Your task to perform on an android device: toggle notifications settings in the gmail app Image 0: 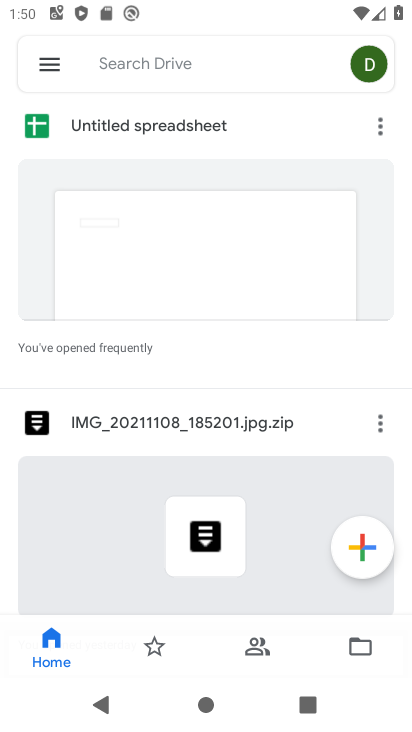
Step 0: press home button
Your task to perform on an android device: toggle notifications settings in the gmail app Image 1: 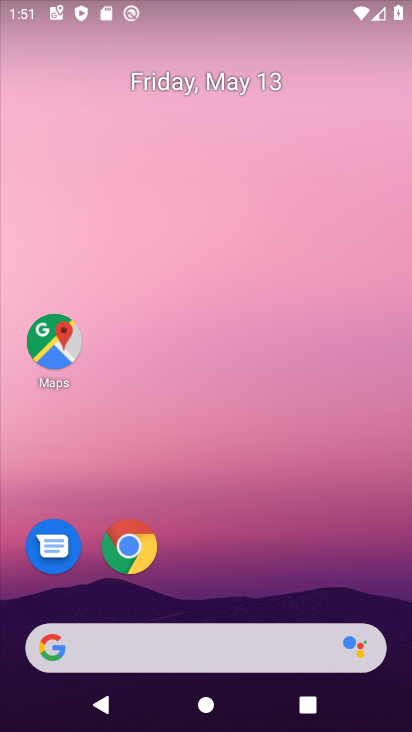
Step 1: drag from (281, 204) to (253, 66)
Your task to perform on an android device: toggle notifications settings in the gmail app Image 2: 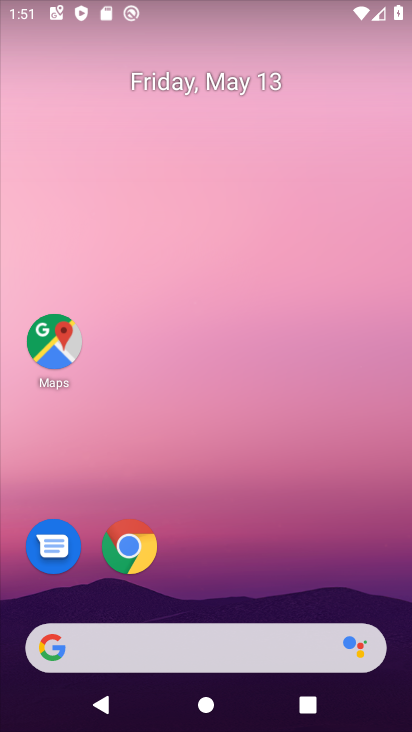
Step 2: drag from (223, 486) to (308, 59)
Your task to perform on an android device: toggle notifications settings in the gmail app Image 3: 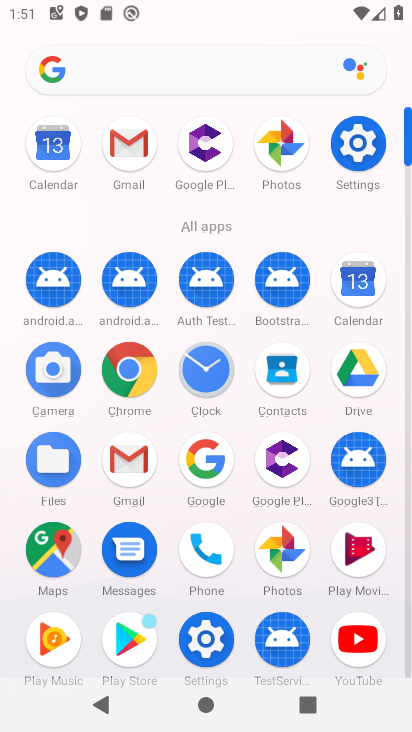
Step 3: click (143, 135)
Your task to perform on an android device: toggle notifications settings in the gmail app Image 4: 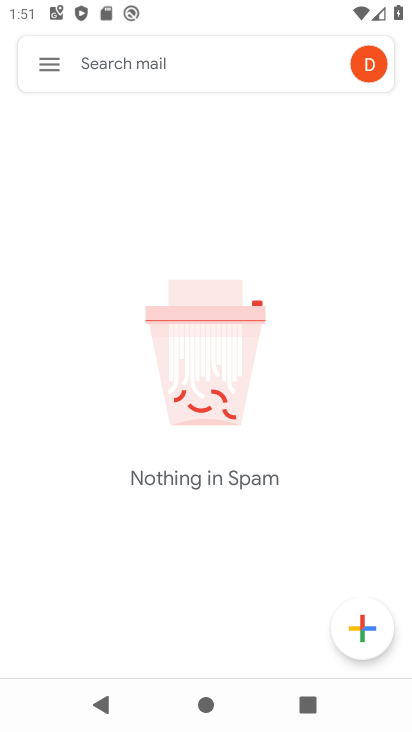
Step 4: click (46, 59)
Your task to perform on an android device: toggle notifications settings in the gmail app Image 5: 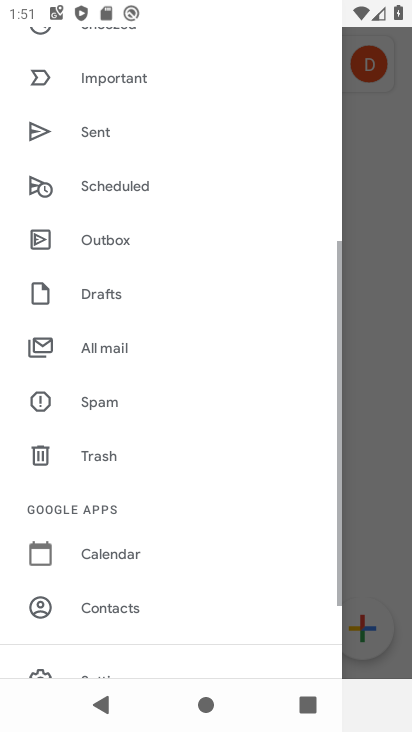
Step 5: drag from (139, 501) to (253, 143)
Your task to perform on an android device: toggle notifications settings in the gmail app Image 6: 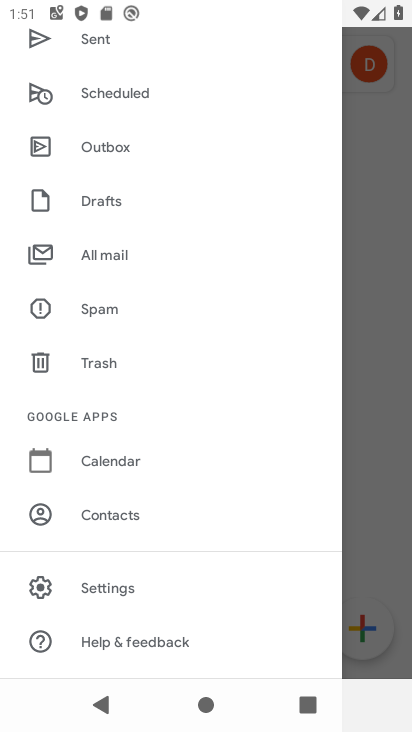
Step 6: click (118, 580)
Your task to perform on an android device: toggle notifications settings in the gmail app Image 7: 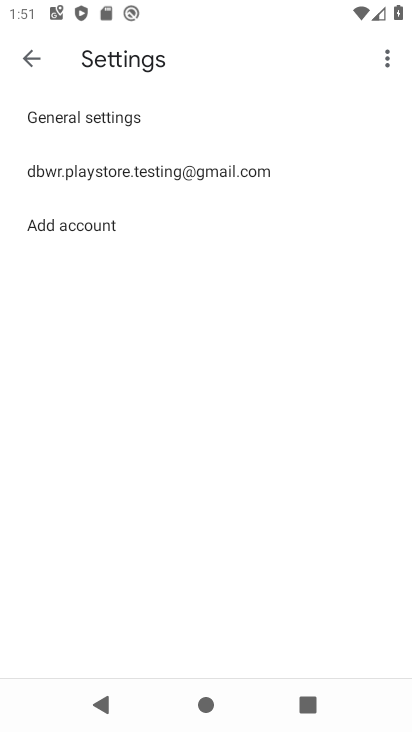
Step 7: click (213, 183)
Your task to perform on an android device: toggle notifications settings in the gmail app Image 8: 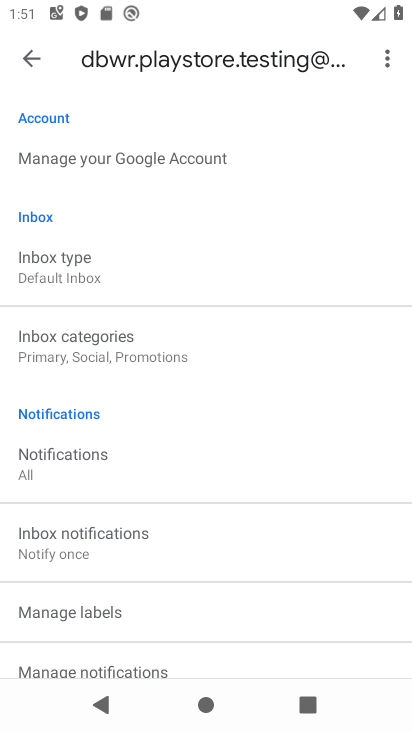
Step 8: drag from (120, 536) to (200, 123)
Your task to perform on an android device: toggle notifications settings in the gmail app Image 9: 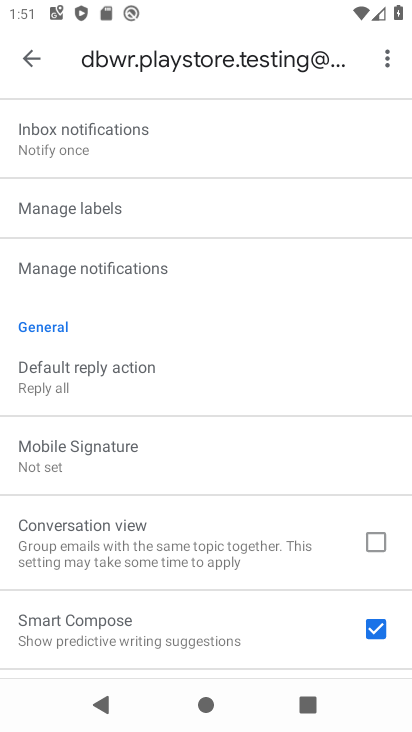
Step 9: drag from (140, 450) to (128, 666)
Your task to perform on an android device: toggle notifications settings in the gmail app Image 10: 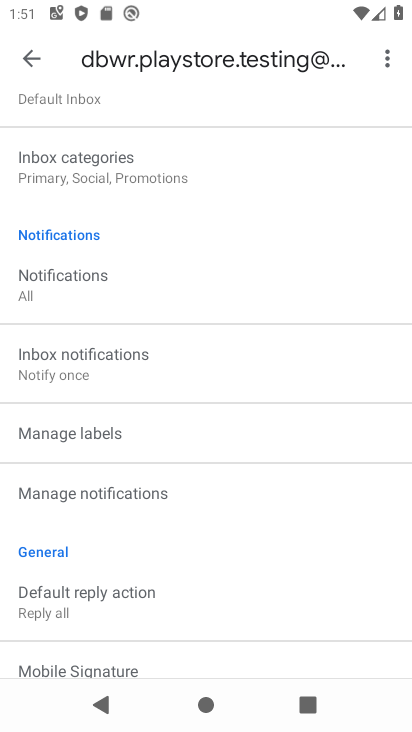
Step 10: click (108, 488)
Your task to perform on an android device: toggle notifications settings in the gmail app Image 11: 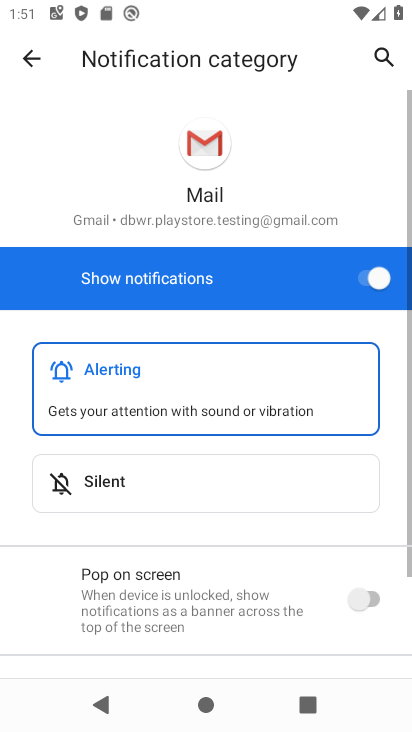
Step 11: drag from (289, 602) to (240, 343)
Your task to perform on an android device: toggle notifications settings in the gmail app Image 12: 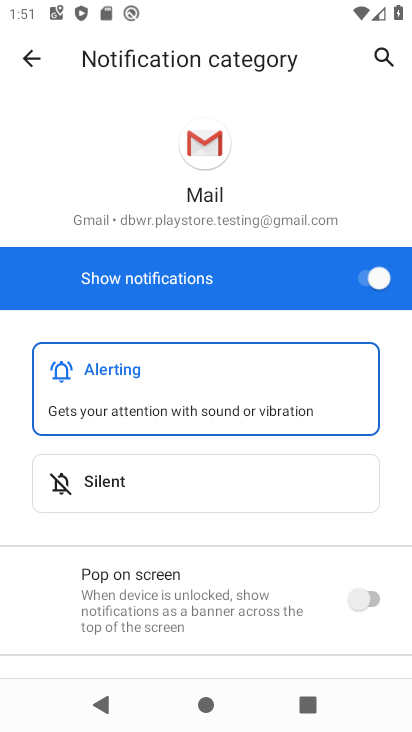
Step 12: drag from (223, 519) to (265, 360)
Your task to perform on an android device: toggle notifications settings in the gmail app Image 13: 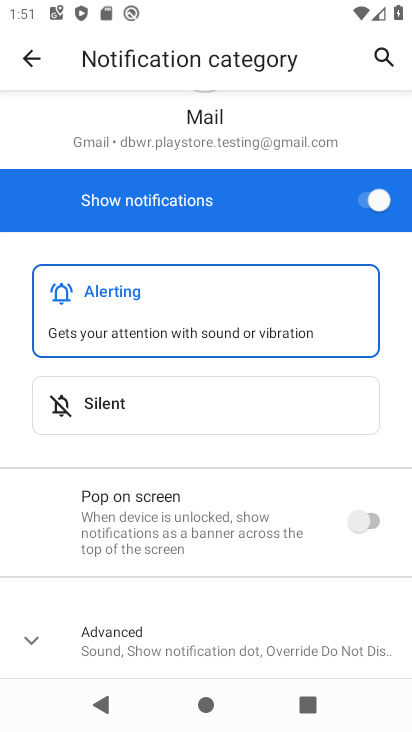
Step 13: click (372, 189)
Your task to perform on an android device: toggle notifications settings in the gmail app Image 14: 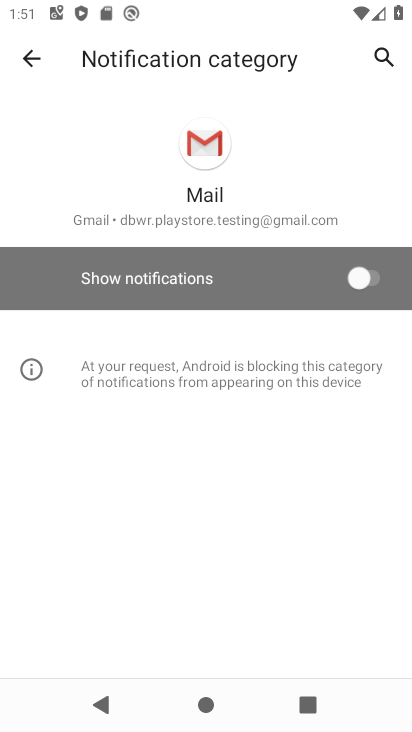
Step 14: task complete